Your task to perform on an android device: see tabs open on other devices in the chrome app Image 0: 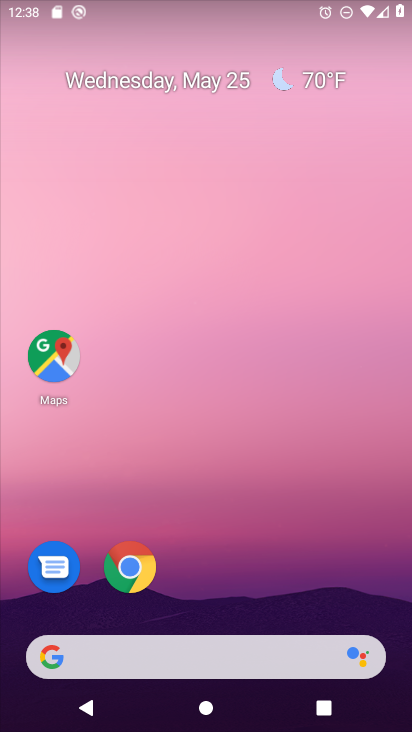
Step 0: click (129, 575)
Your task to perform on an android device: see tabs open on other devices in the chrome app Image 1: 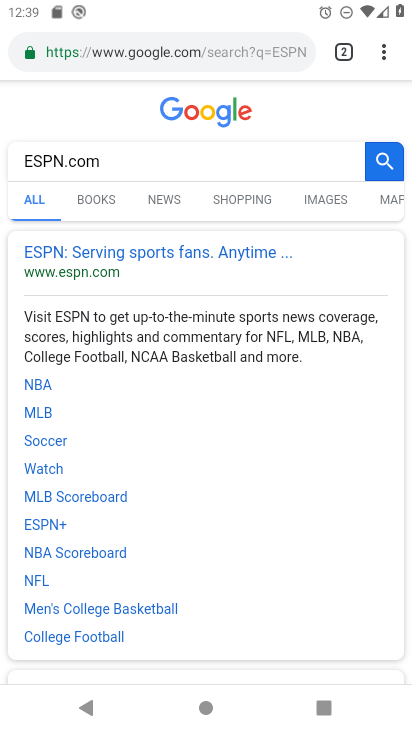
Step 1: click (382, 47)
Your task to perform on an android device: see tabs open on other devices in the chrome app Image 2: 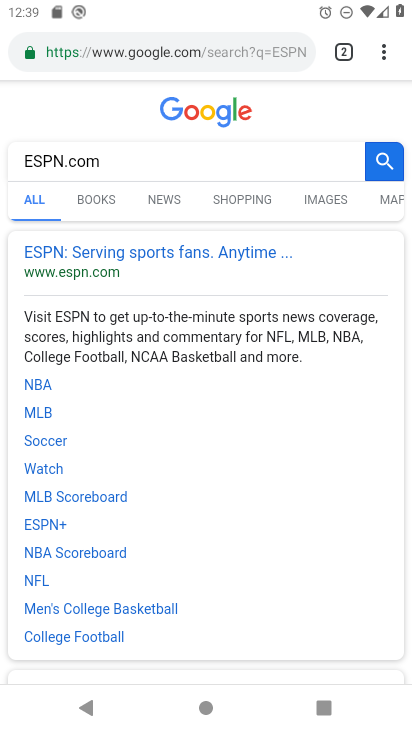
Step 2: click (383, 54)
Your task to perform on an android device: see tabs open on other devices in the chrome app Image 3: 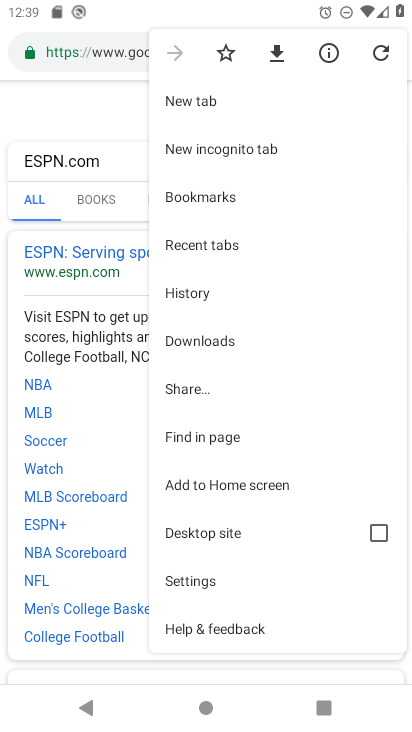
Step 3: click (180, 585)
Your task to perform on an android device: see tabs open on other devices in the chrome app Image 4: 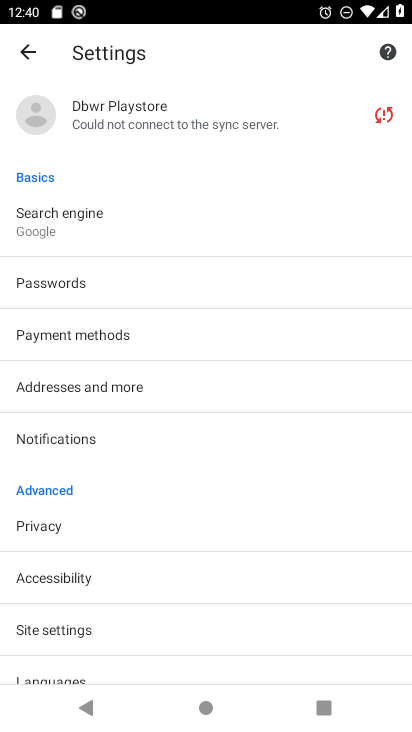
Step 4: click (25, 52)
Your task to perform on an android device: see tabs open on other devices in the chrome app Image 5: 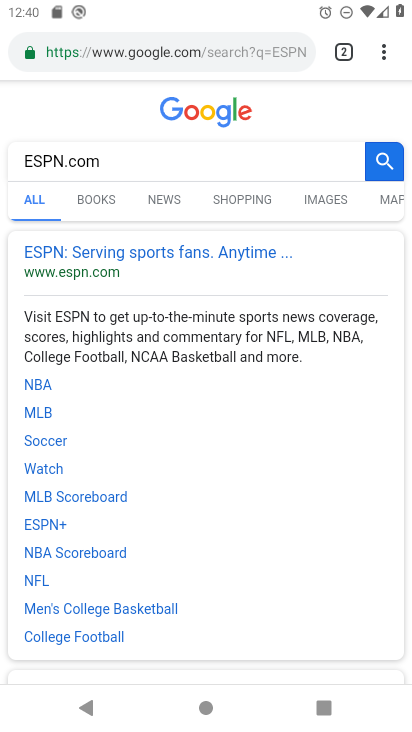
Step 5: click (384, 49)
Your task to perform on an android device: see tabs open on other devices in the chrome app Image 6: 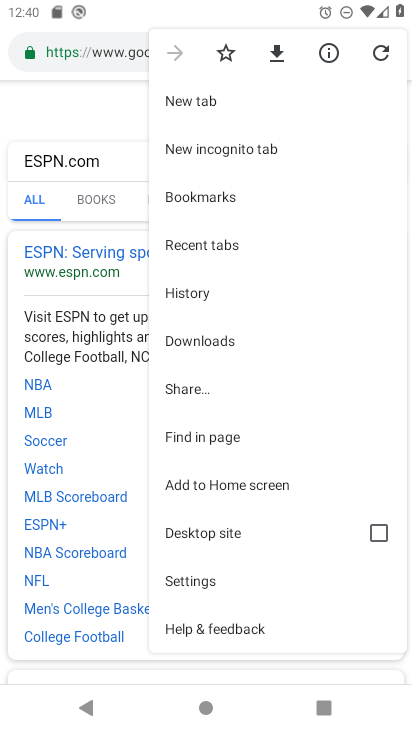
Step 6: click (185, 239)
Your task to perform on an android device: see tabs open on other devices in the chrome app Image 7: 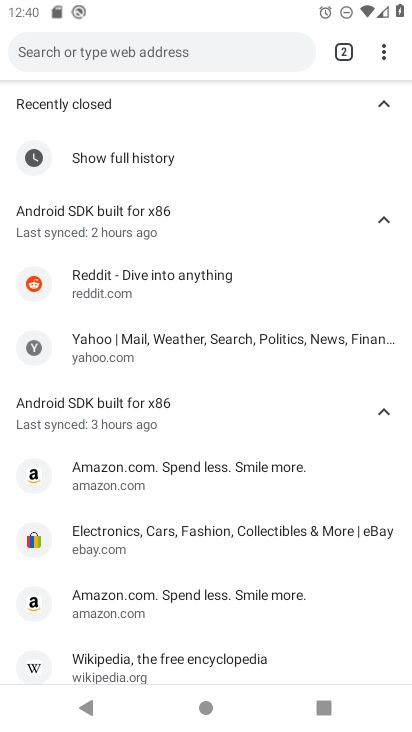
Step 7: task complete